Your task to perform on an android device: Show me the alarms in the clock app Image 0: 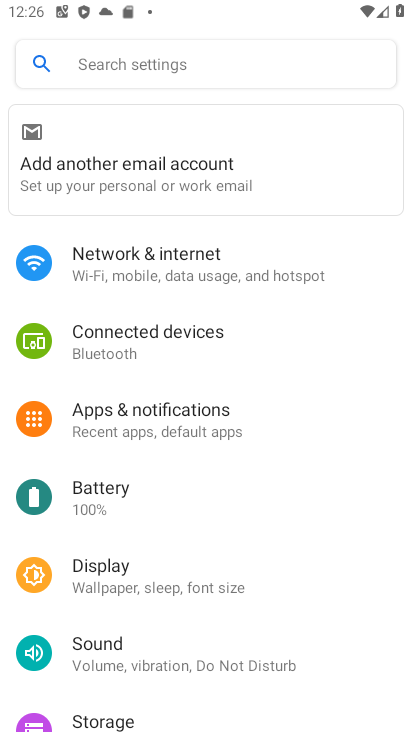
Step 0: task complete